Your task to perform on an android device: turn on translation in the chrome app Image 0: 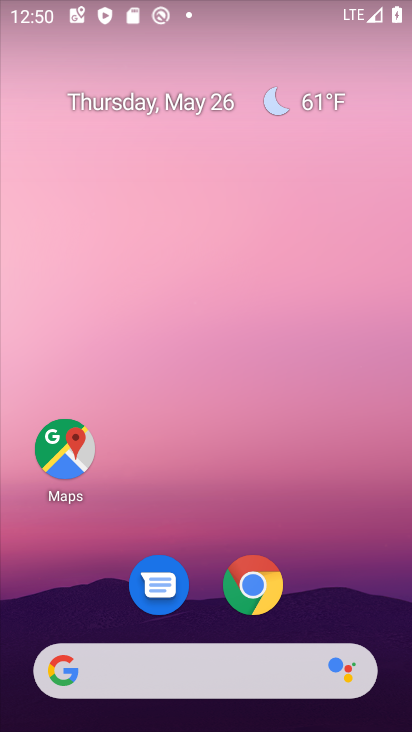
Step 0: click (264, 577)
Your task to perform on an android device: turn on translation in the chrome app Image 1: 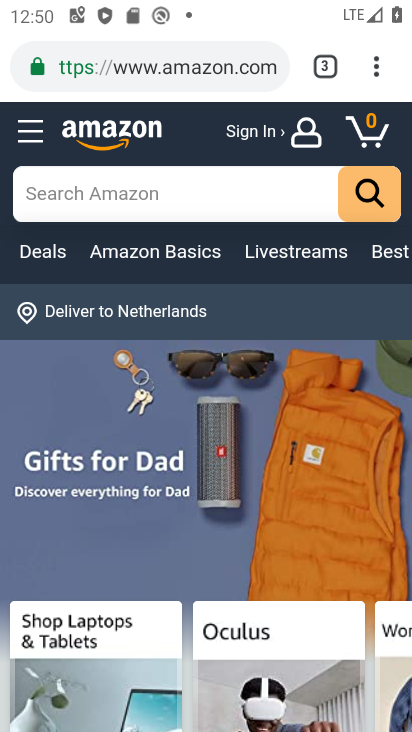
Step 1: click (372, 70)
Your task to perform on an android device: turn on translation in the chrome app Image 2: 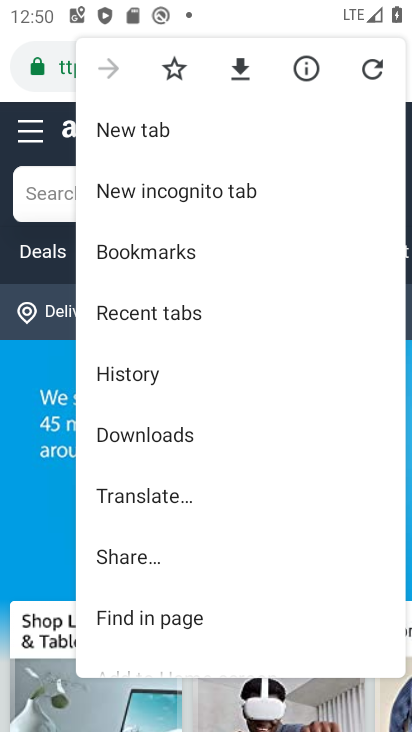
Step 2: drag from (203, 542) to (238, 194)
Your task to perform on an android device: turn on translation in the chrome app Image 3: 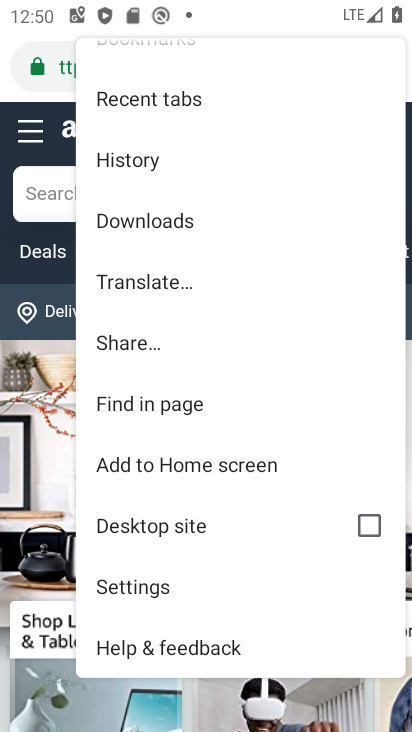
Step 3: click (146, 579)
Your task to perform on an android device: turn on translation in the chrome app Image 4: 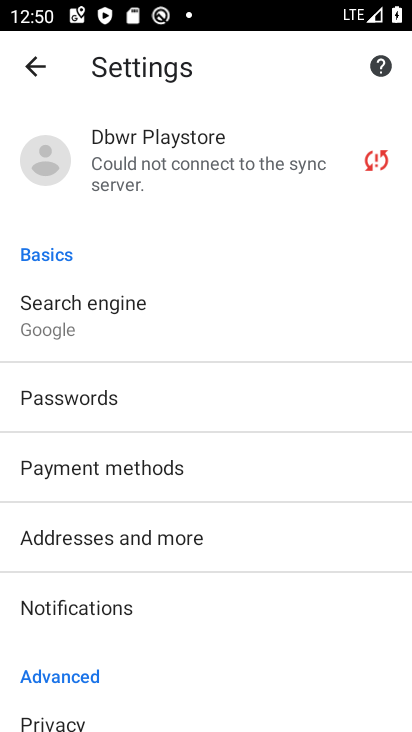
Step 4: drag from (250, 551) to (340, 155)
Your task to perform on an android device: turn on translation in the chrome app Image 5: 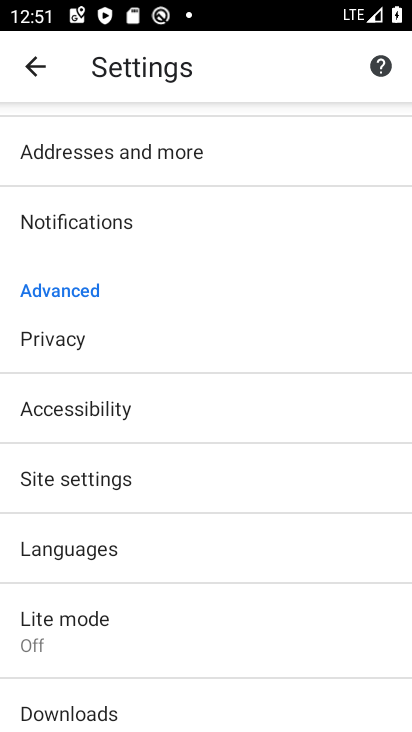
Step 5: click (197, 550)
Your task to perform on an android device: turn on translation in the chrome app Image 6: 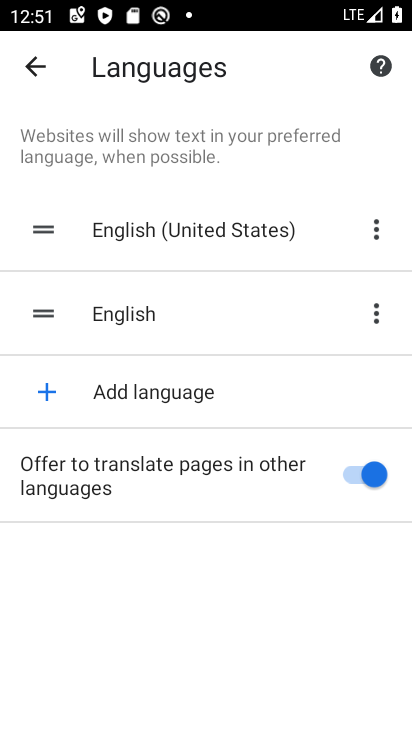
Step 6: task complete